Your task to perform on an android device: What's the weather going to be tomorrow? Image 0: 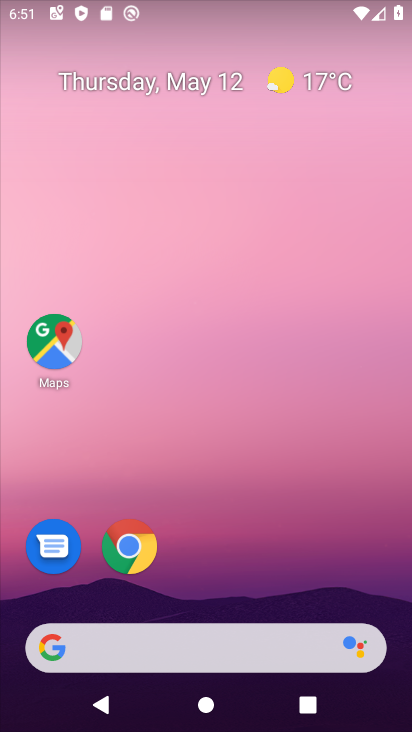
Step 0: click (207, 649)
Your task to perform on an android device: What's the weather going to be tomorrow? Image 1: 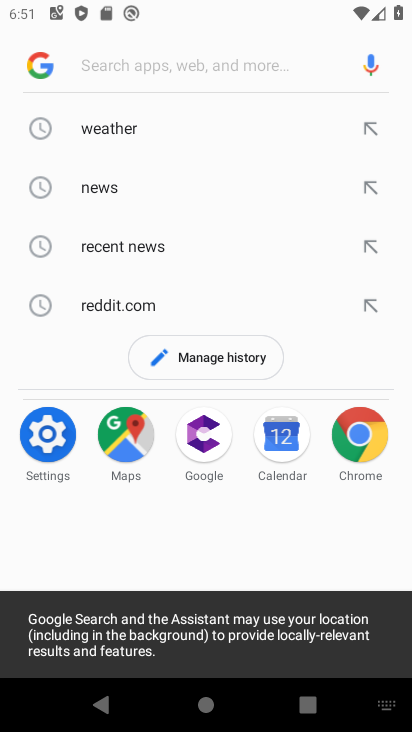
Step 1: click (114, 130)
Your task to perform on an android device: What's the weather going to be tomorrow? Image 2: 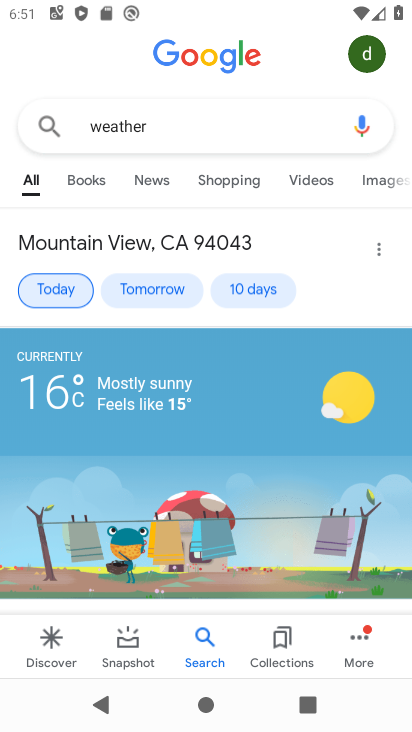
Step 2: click (145, 297)
Your task to perform on an android device: What's the weather going to be tomorrow? Image 3: 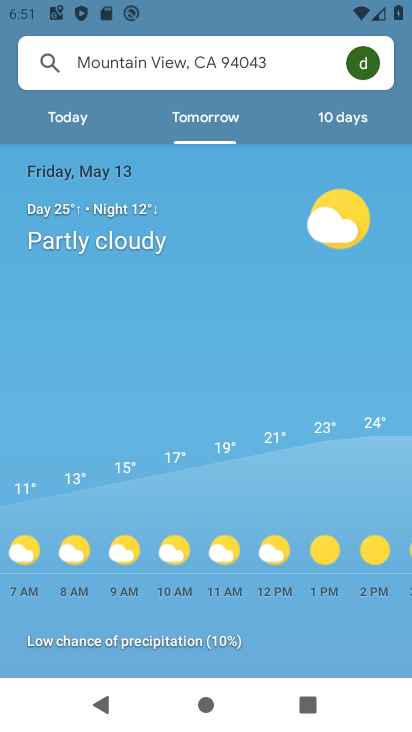
Step 3: task complete